Your task to perform on an android device: all mails in gmail Image 0: 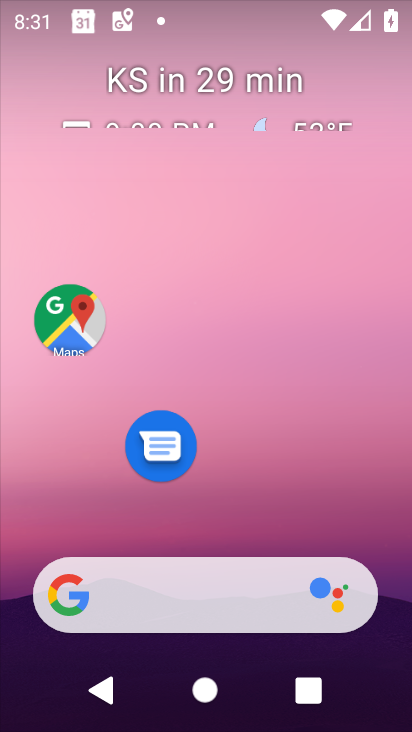
Step 0: drag from (213, 533) to (212, 15)
Your task to perform on an android device: all mails in gmail Image 1: 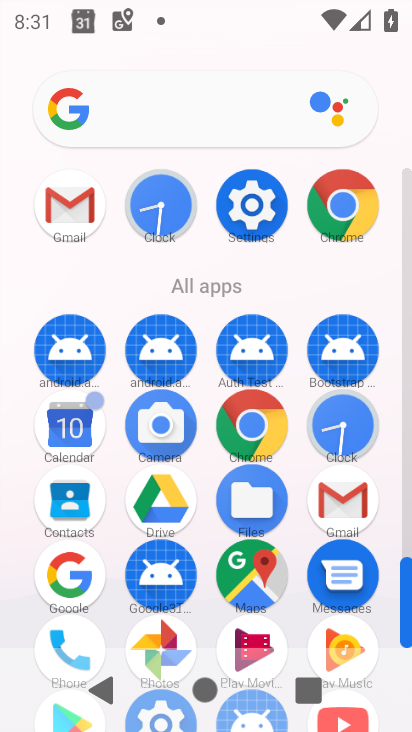
Step 1: click (340, 508)
Your task to perform on an android device: all mails in gmail Image 2: 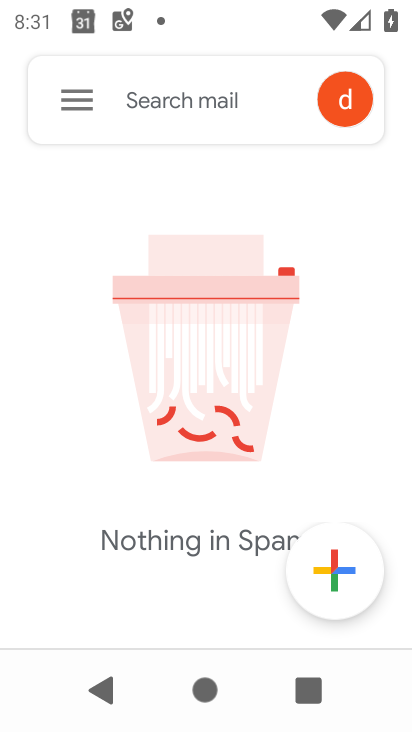
Step 2: click (84, 100)
Your task to perform on an android device: all mails in gmail Image 3: 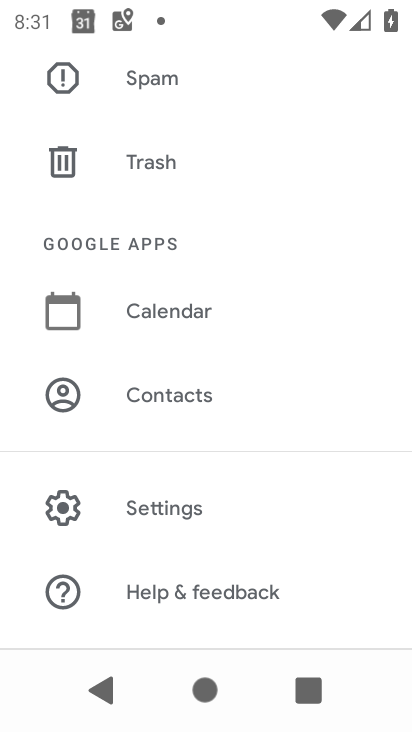
Step 3: drag from (159, 139) to (179, 461)
Your task to perform on an android device: all mails in gmail Image 4: 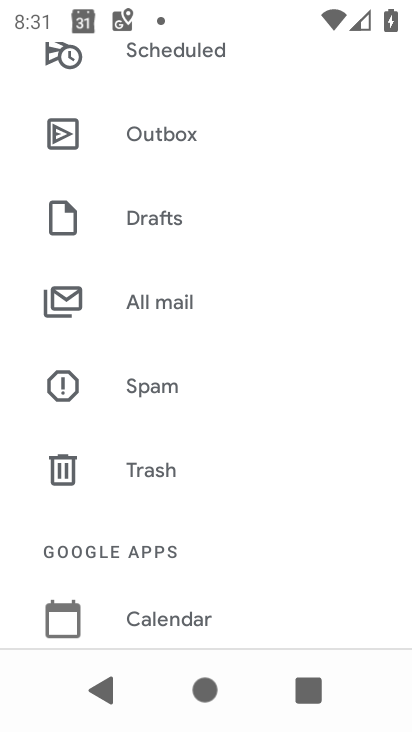
Step 4: click (151, 306)
Your task to perform on an android device: all mails in gmail Image 5: 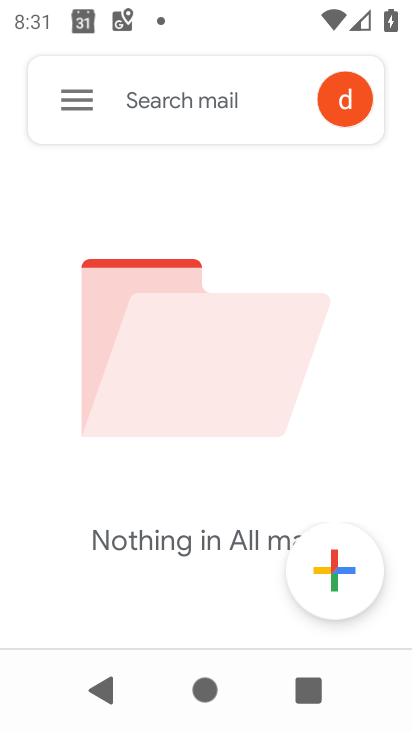
Step 5: task complete